Your task to perform on an android device: Open accessibility settings Image 0: 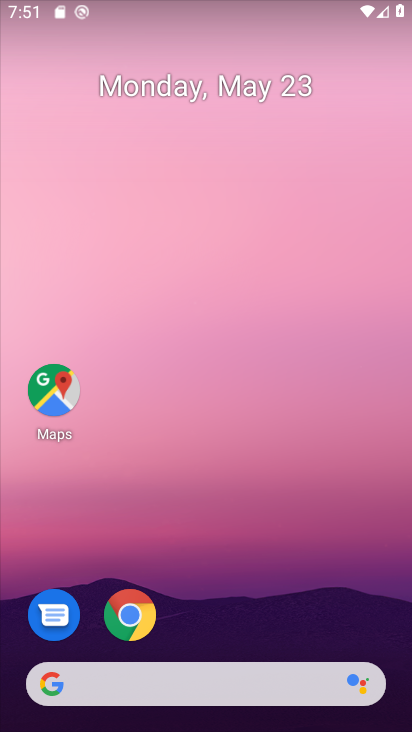
Step 0: drag from (264, 702) to (307, 85)
Your task to perform on an android device: Open accessibility settings Image 1: 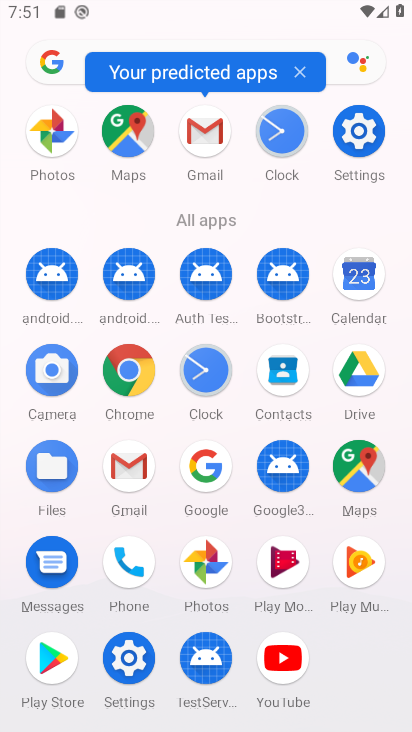
Step 1: click (354, 148)
Your task to perform on an android device: Open accessibility settings Image 2: 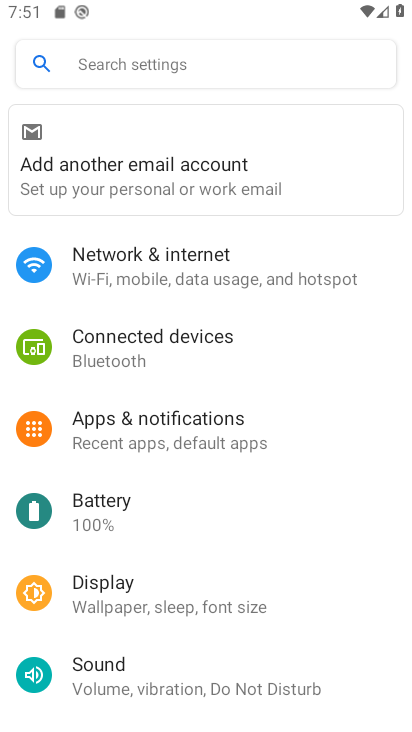
Step 2: drag from (297, 586) to (357, 133)
Your task to perform on an android device: Open accessibility settings Image 3: 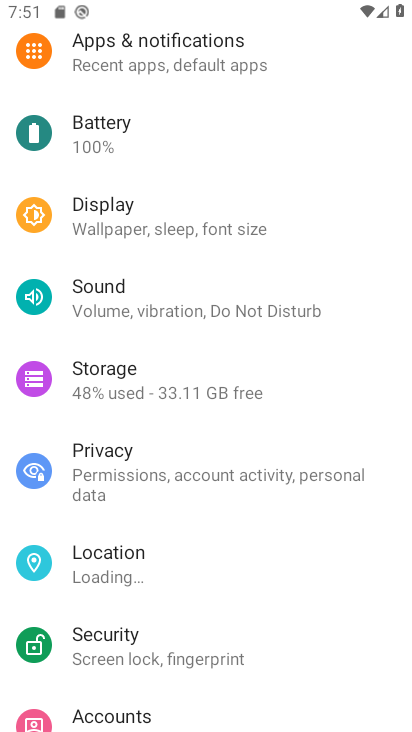
Step 3: drag from (310, 518) to (332, 134)
Your task to perform on an android device: Open accessibility settings Image 4: 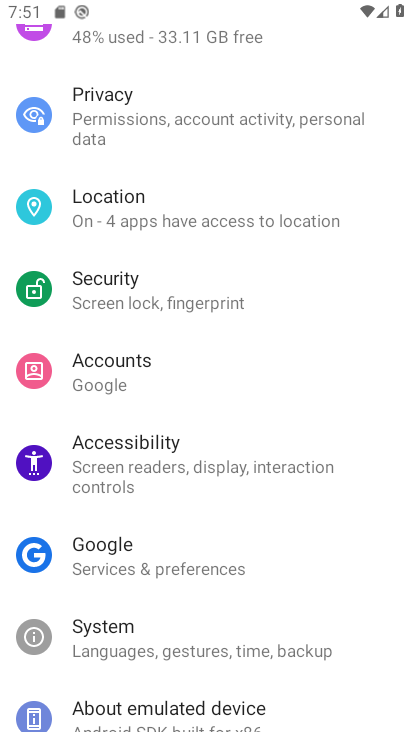
Step 4: click (245, 459)
Your task to perform on an android device: Open accessibility settings Image 5: 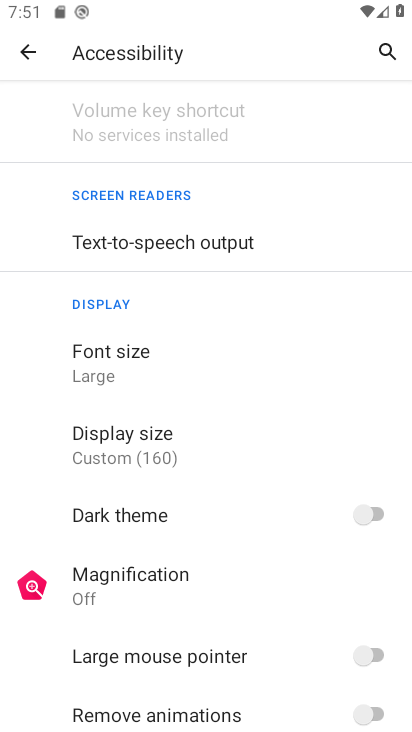
Step 5: task complete